Your task to perform on an android device: What's the weather today? Image 0: 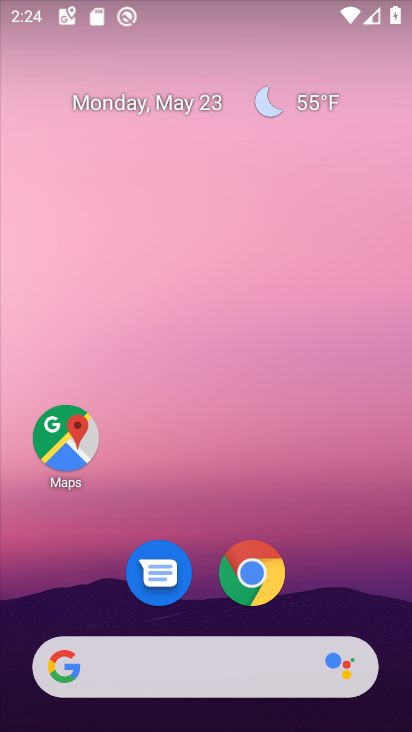
Step 0: click (307, 104)
Your task to perform on an android device: What's the weather today? Image 1: 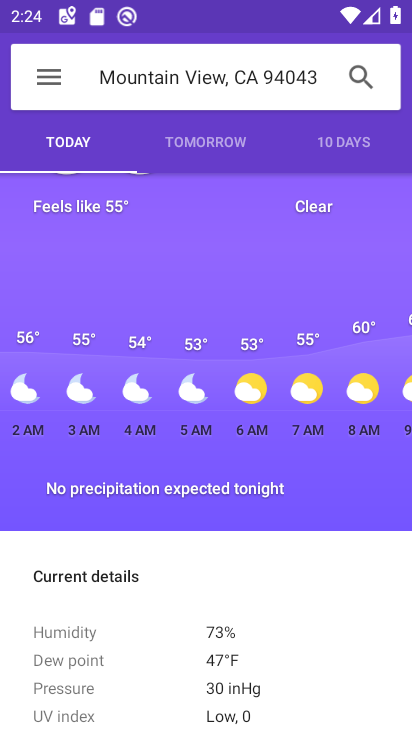
Step 1: task complete